Your task to perform on an android device: add a contact Image 0: 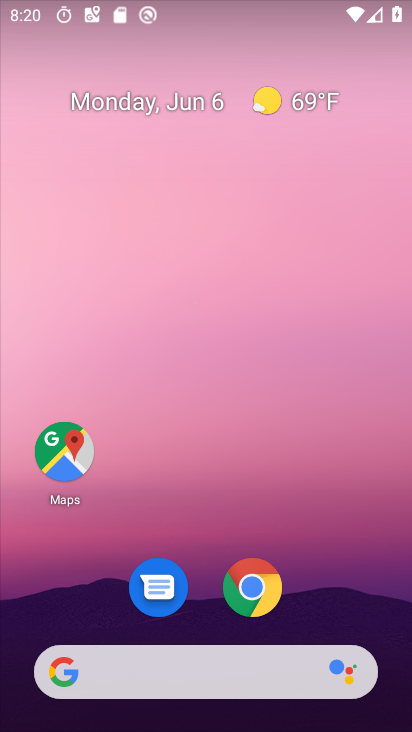
Step 0: press home button
Your task to perform on an android device: add a contact Image 1: 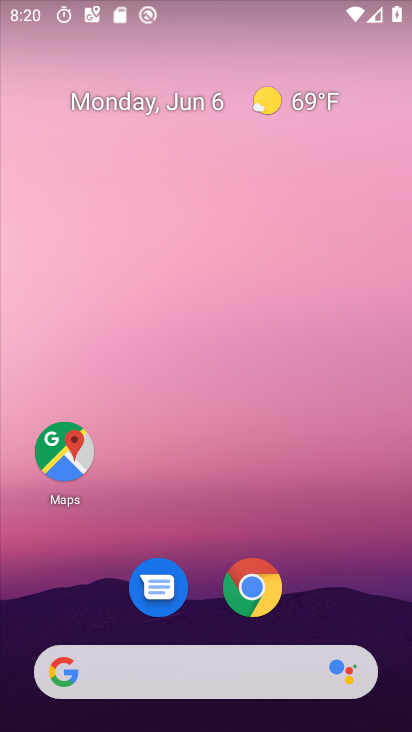
Step 1: drag from (359, 595) to (333, 196)
Your task to perform on an android device: add a contact Image 2: 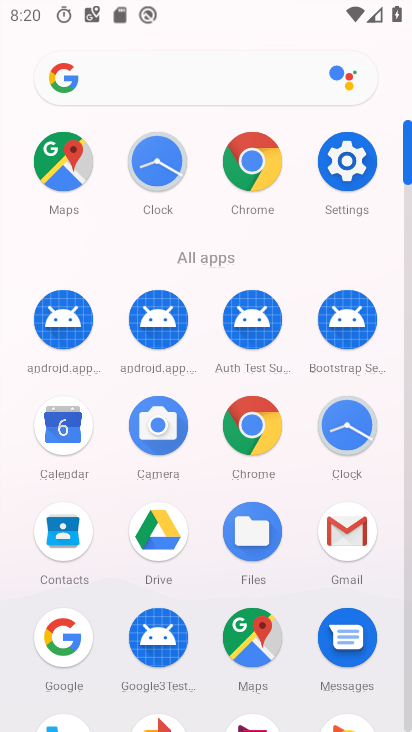
Step 2: click (20, 528)
Your task to perform on an android device: add a contact Image 3: 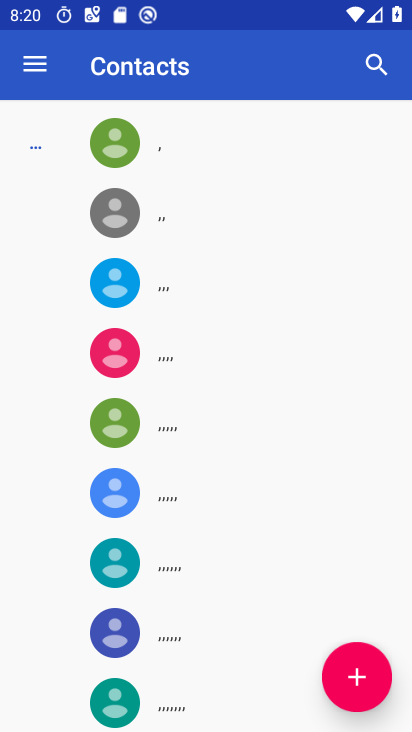
Step 3: click (354, 674)
Your task to perform on an android device: add a contact Image 4: 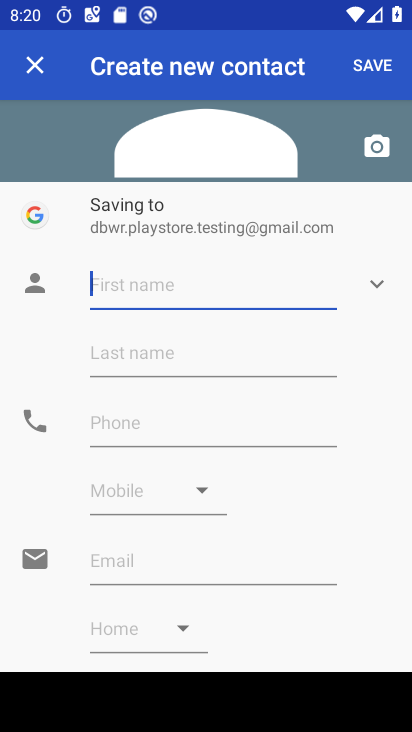
Step 4: click (232, 289)
Your task to perform on an android device: add a contact Image 5: 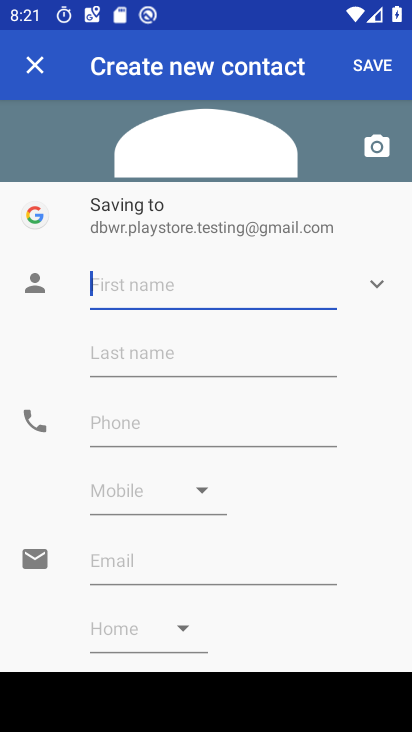
Step 5: type "rajesh"
Your task to perform on an android device: add a contact Image 6: 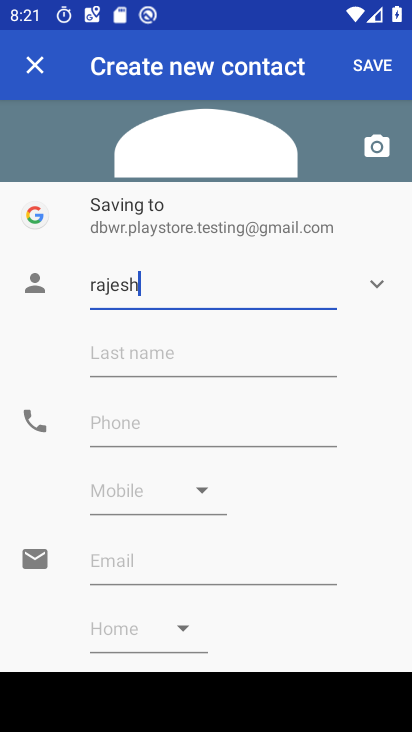
Step 6: click (293, 439)
Your task to perform on an android device: add a contact Image 7: 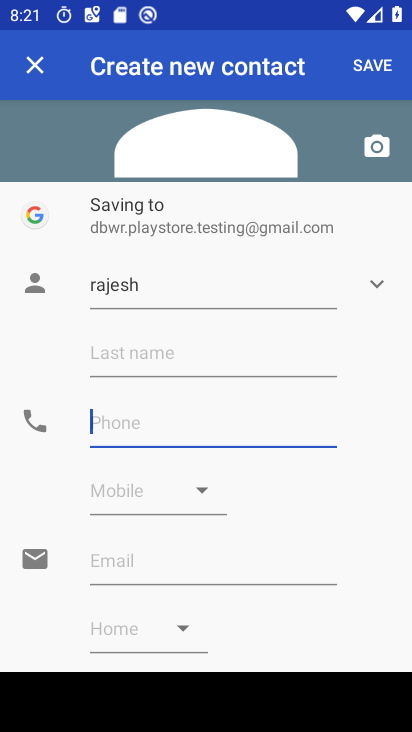
Step 7: type "878765654"
Your task to perform on an android device: add a contact Image 8: 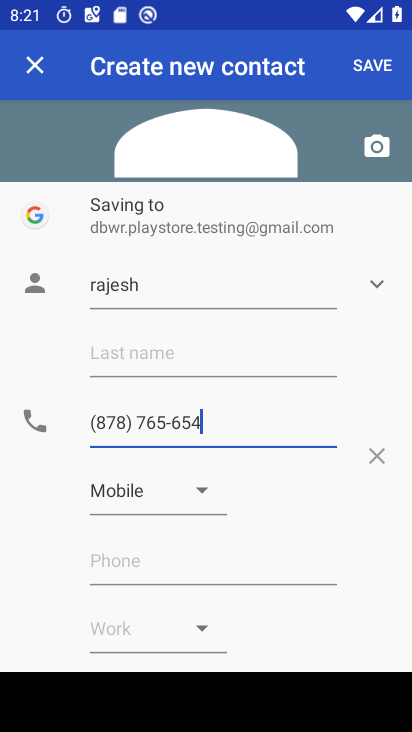
Step 8: click (372, 66)
Your task to perform on an android device: add a contact Image 9: 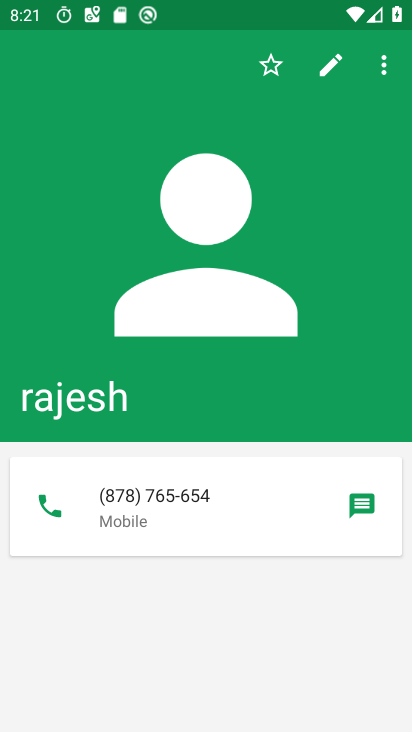
Step 9: task complete